Your task to perform on an android device: Go to internet settings Image 0: 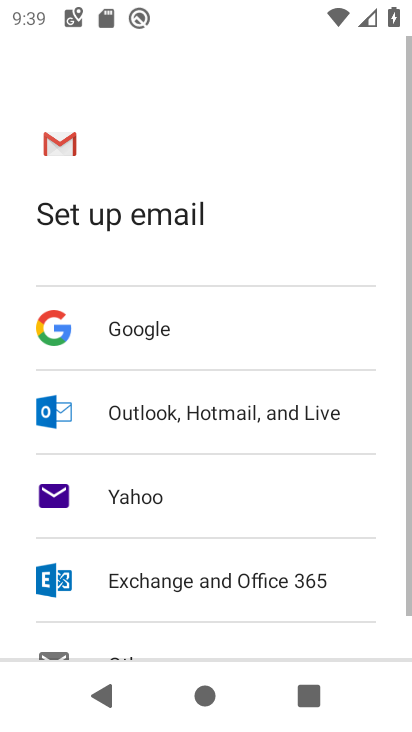
Step 0: press home button
Your task to perform on an android device: Go to internet settings Image 1: 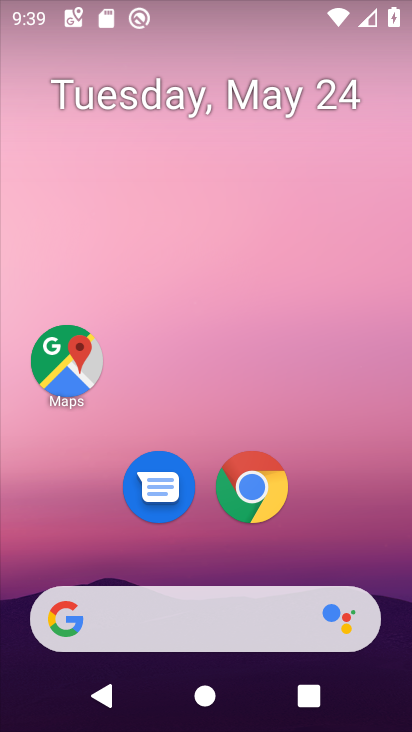
Step 1: drag from (190, 605) to (353, 51)
Your task to perform on an android device: Go to internet settings Image 2: 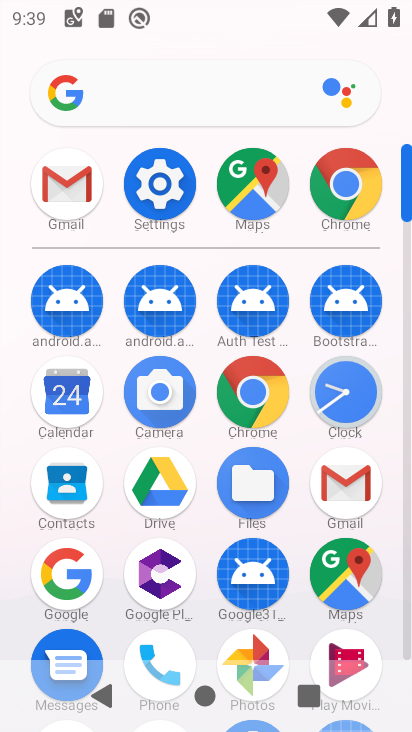
Step 2: click (163, 196)
Your task to perform on an android device: Go to internet settings Image 3: 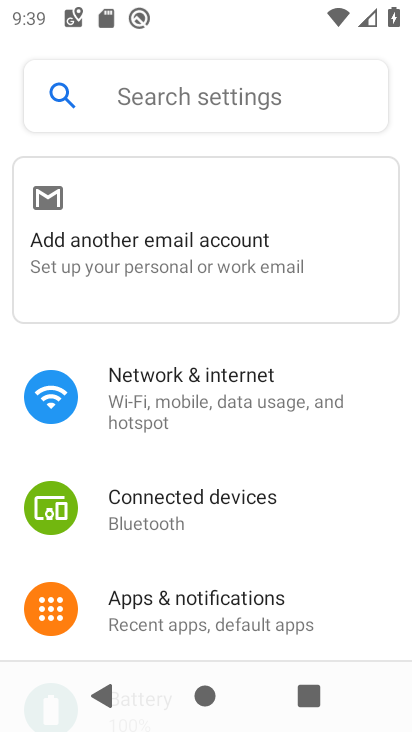
Step 3: click (165, 405)
Your task to perform on an android device: Go to internet settings Image 4: 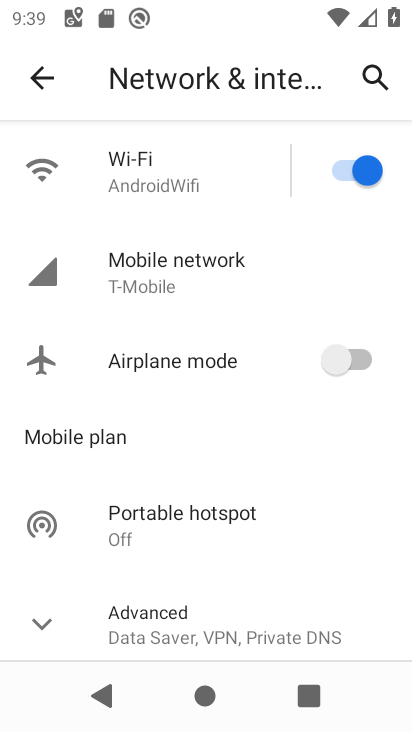
Step 4: click (160, 196)
Your task to perform on an android device: Go to internet settings Image 5: 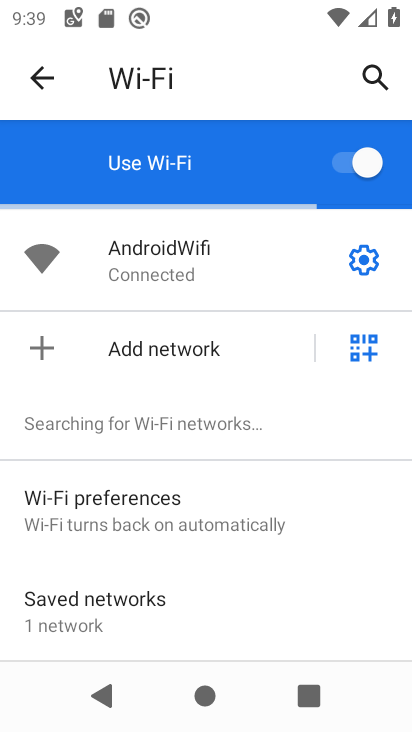
Step 5: task complete